Your task to perform on an android device: What's the weather today? Image 0: 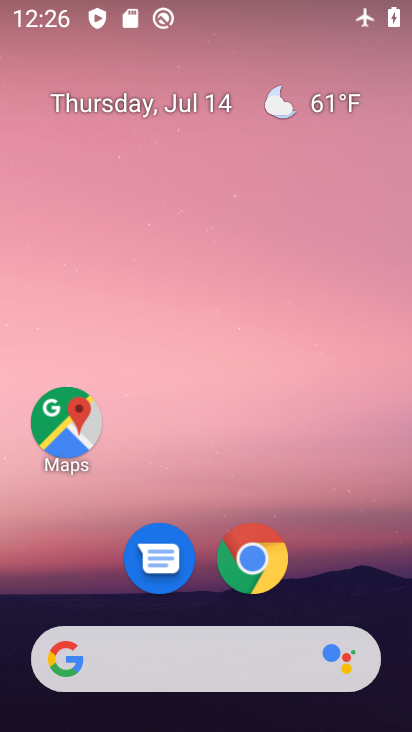
Step 0: click (278, 103)
Your task to perform on an android device: What's the weather today? Image 1: 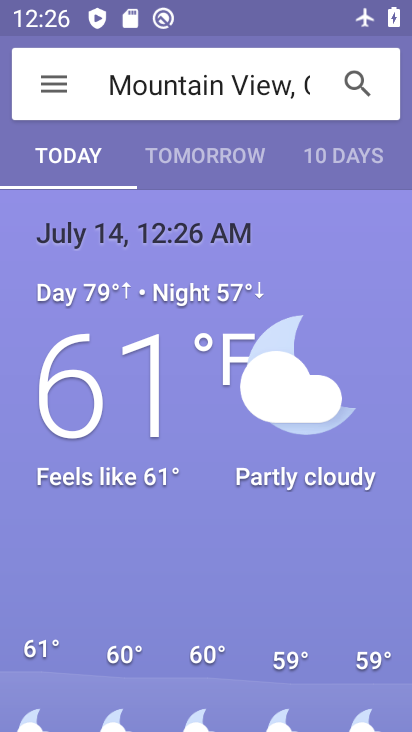
Step 1: task complete